Your task to perform on an android device: find snoozed emails in the gmail app Image 0: 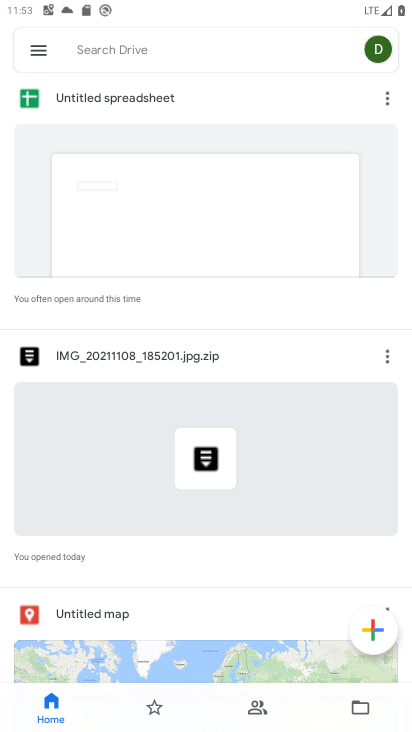
Step 0: press home button
Your task to perform on an android device: find snoozed emails in the gmail app Image 1: 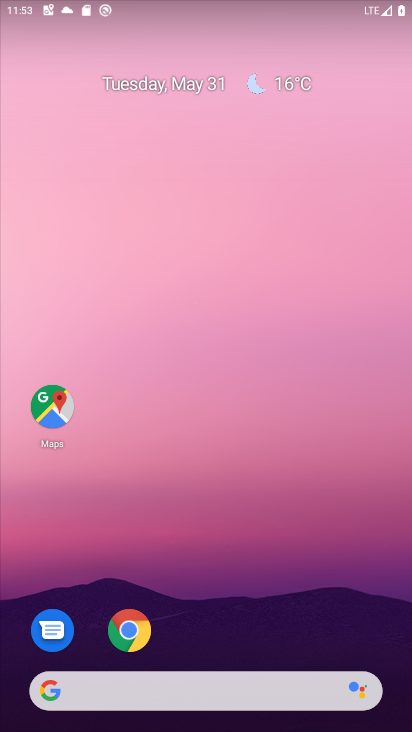
Step 1: drag from (226, 630) to (292, 16)
Your task to perform on an android device: find snoozed emails in the gmail app Image 2: 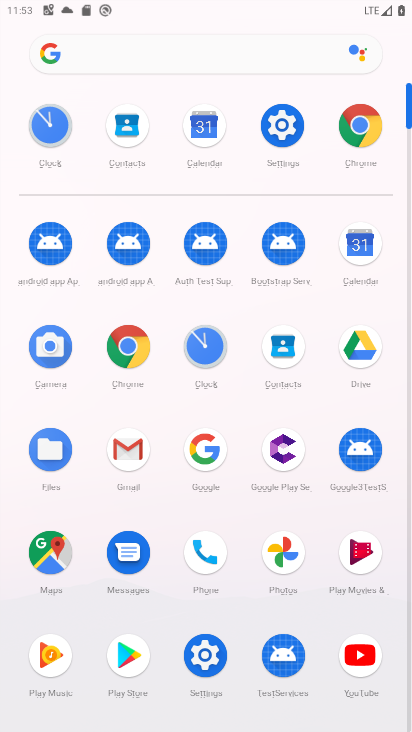
Step 2: click (137, 443)
Your task to perform on an android device: find snoozed emails in the gmail app Image 3: 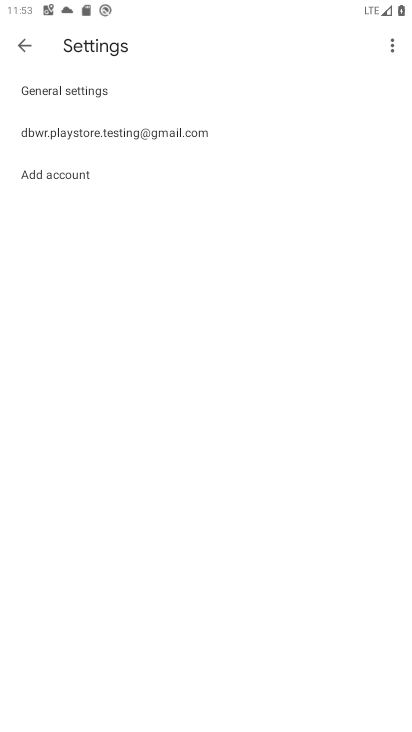
Step 3: click (20, 34)
Your task to perform on an android device: find snoozed emails in the gmail app Image 4: 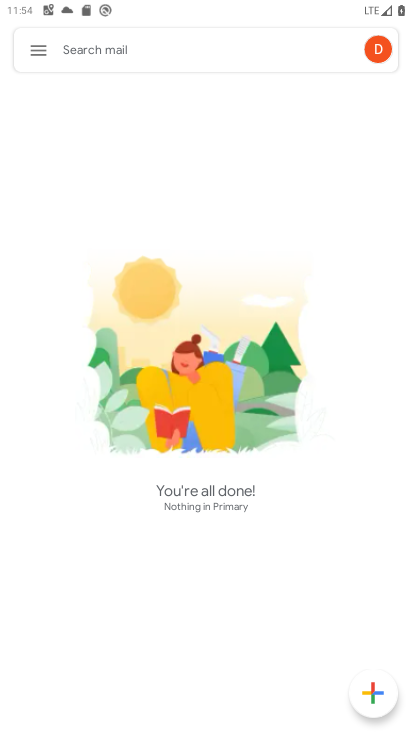
Step 4: click (33, 47)
Your task to perform on an android device: find snoozed emails in the gmail app Image 5: 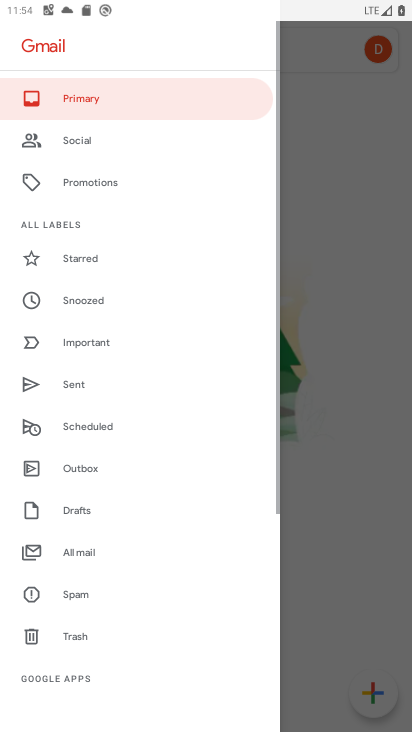
Step 5: click (99, 298)
Your task to perform on an android device: find snoozed emails in the gmail app Image 6: 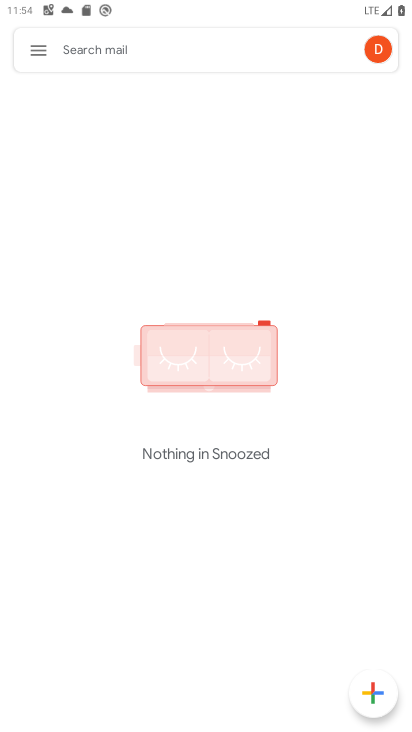
Step 6: task complete